Your task to perform on an android device: check android version Image 0: 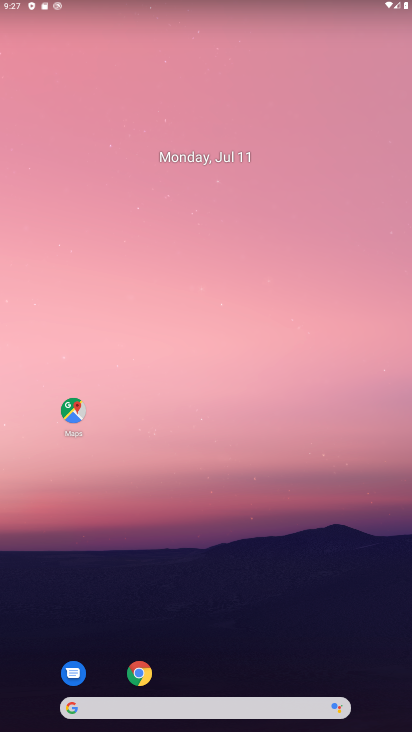
Step 0: press home button
Your task to perform on an android device: check android version Image 1: 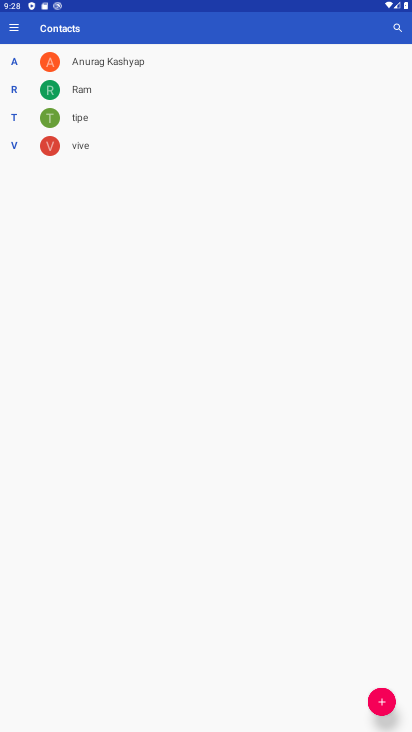
Step 1: drag from (298, 641) to (237, 114)
Your task to perform on an android device: check android version Image 2: 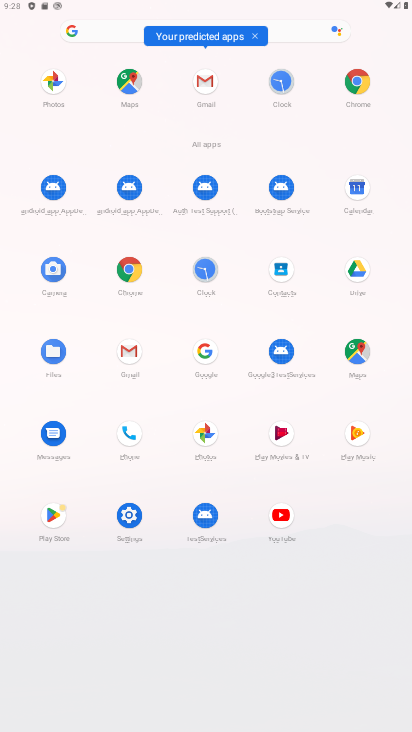
Step 2: drag from (132, 513) to (222, 354)
Your task to perform on an android device: check android version Image 3: 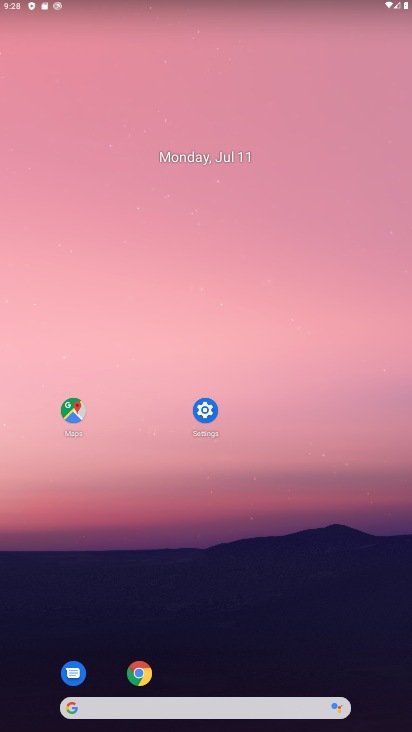
Step 3: click (205, 414)
Your task to perform on an android device: check android version Image 4: 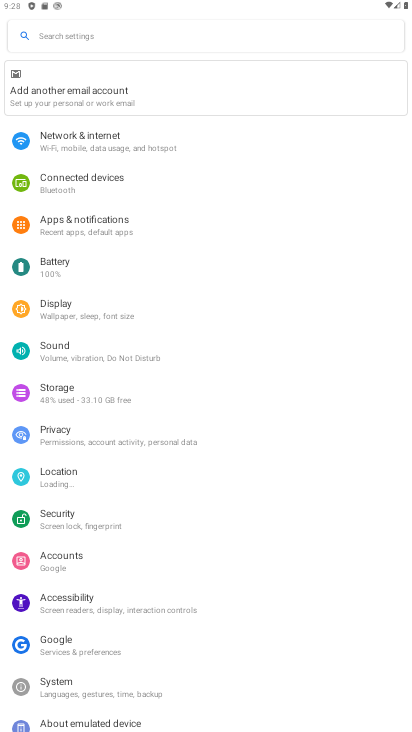
Step 4: drag from (171, 628) to (169, 308)
Your task to perform on an android device: check android version Image 5: 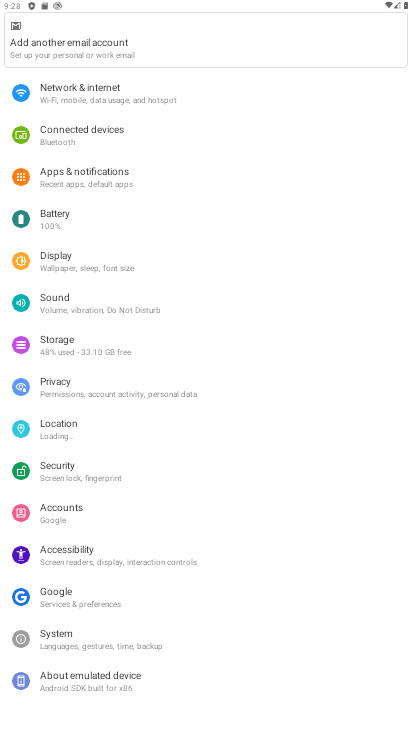
Step 5: click (179, 666)
Your task to perform on an android device: check android version Image 6: 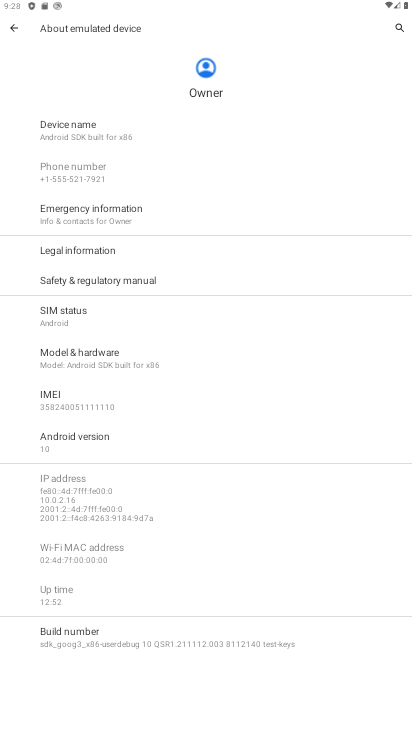
Step 6: click (187, 438)
Your task to perform on an android device: check android version Image 7: 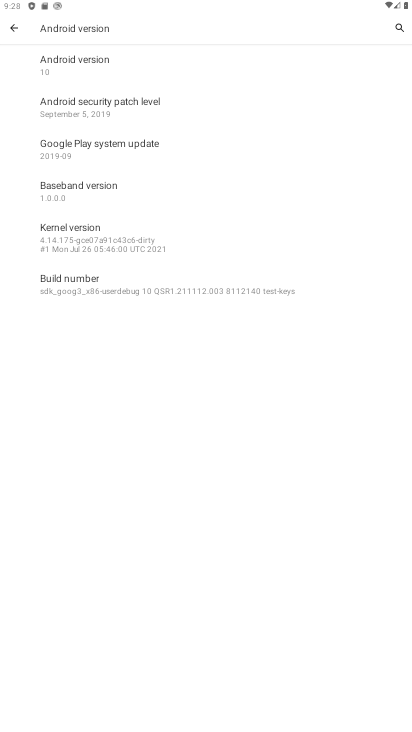
Step 7: task complete